Your task to perform on an android device: add a contact in the contacts app Image 0: 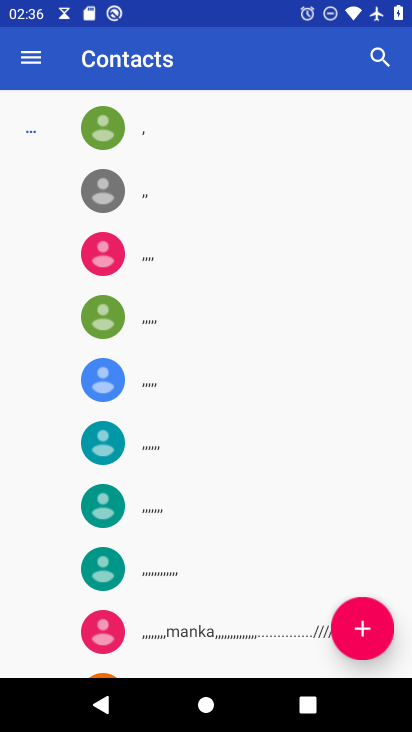
Step 0: press home button
Your task to perform on an android device: add a contact in the contacts app Image 1: 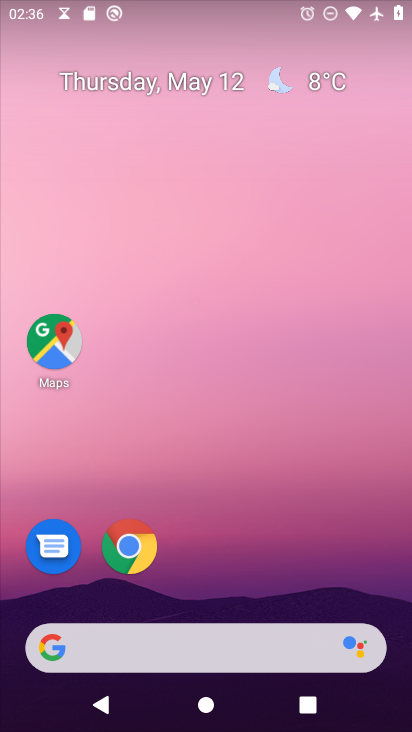
Step 1: drag from (187, 648) to (287, 279)
Your task to perform on an android device: add a contact in the contacts app Image 2: 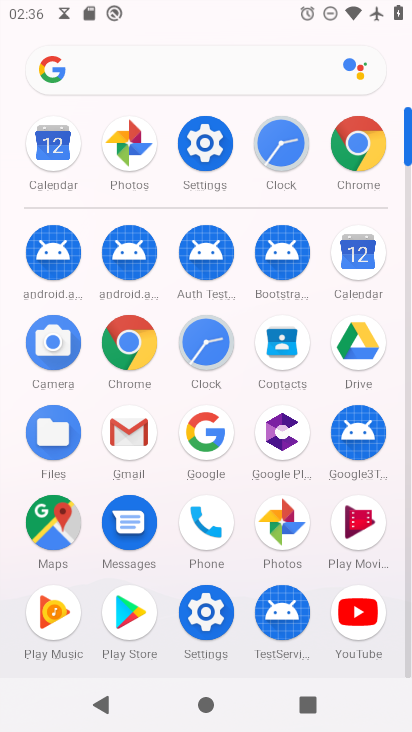
Step 2: click (275, 353)
Your task to perform on an android device: add a contact in the contacts app Image 3: 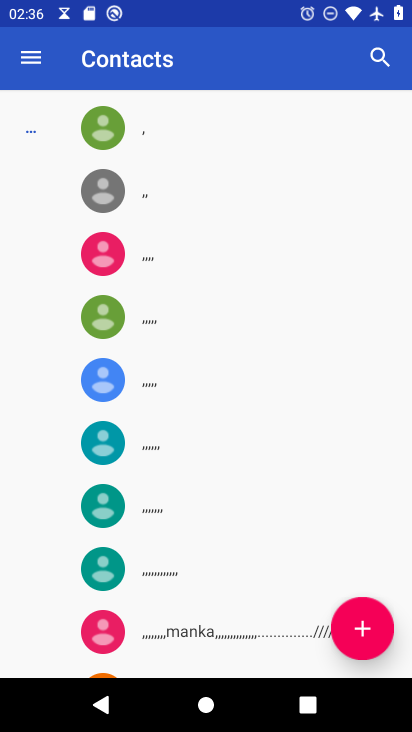
Step 3: click (363, 626)
Your task to perform on an android device: add a contact in the contacts app Image 4: 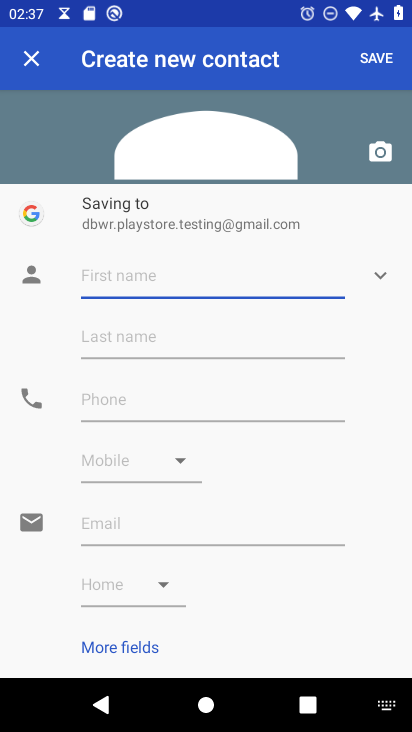
Step 4: type "mfty"
Your task to perform on an android device: add a contact in the contacts app Image 5: 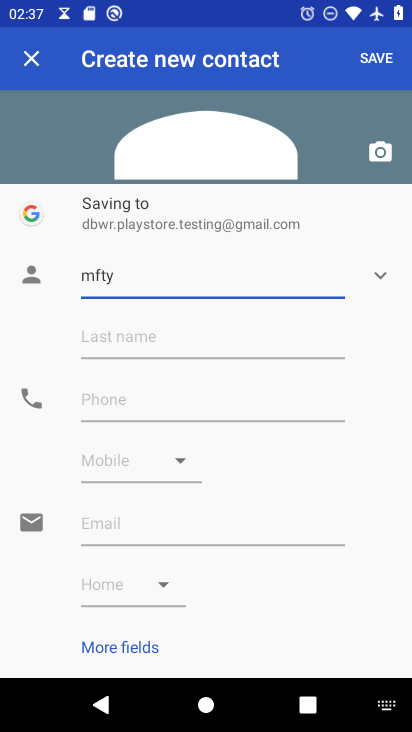
Step 5: click (105, 399)
Your task to perform on an android device: add a contact in the contacts app Image 6: 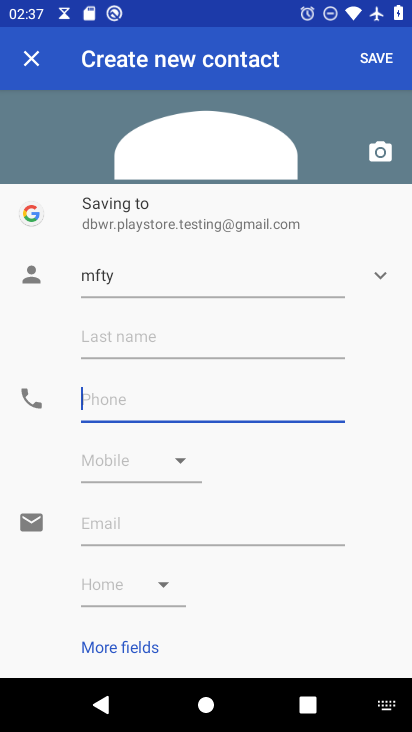
Step 6: type "4765"
Your task to perform on an android device: add a contact in the contacts app Image 7: 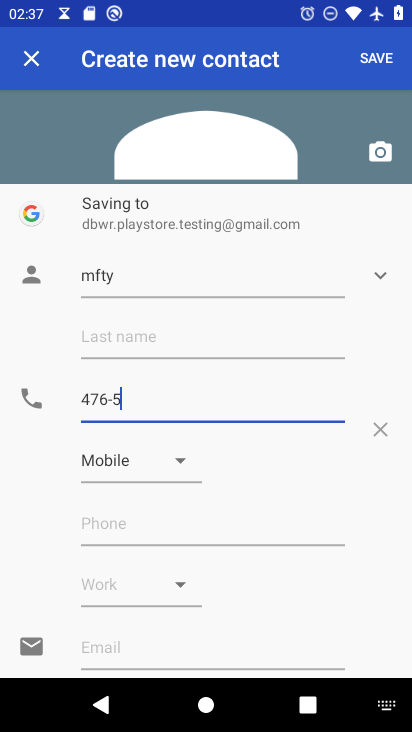
Step 7: click (367, 58)
Your task to perform on an android device: add a contact in the contacts app Image 8: 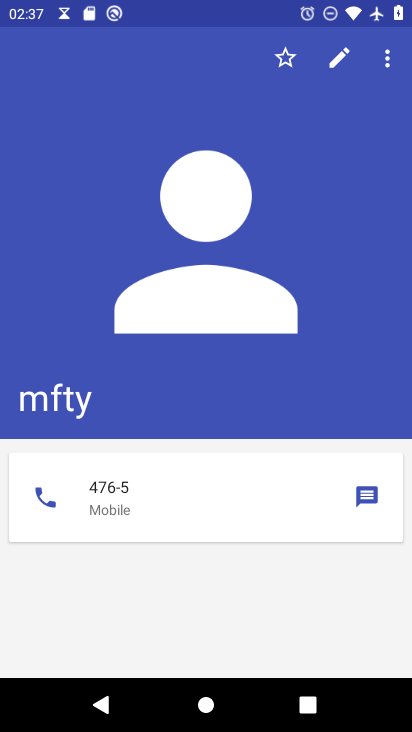
Step 8: task complete